Your task to perform on an android device: Go to CNN.com Image 0: 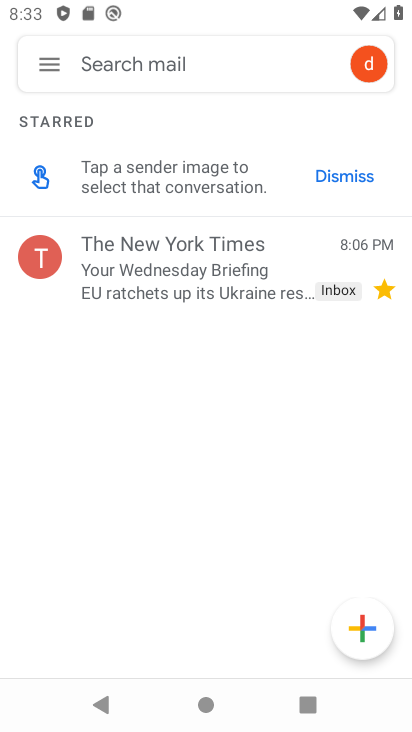
Step 0: press home button
Your task to perform on an android device: Go to CNN.com Image 1: 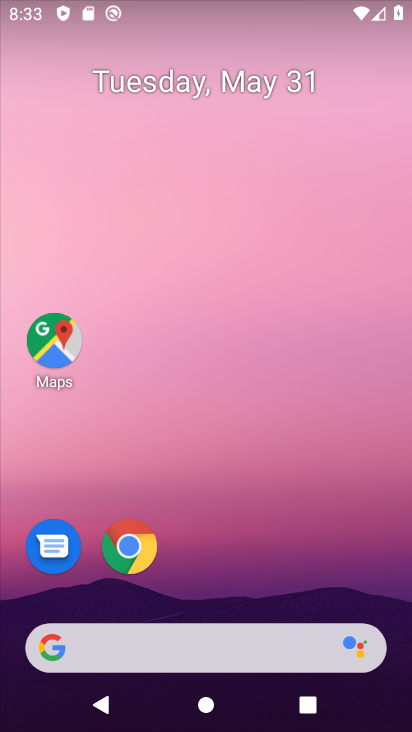
Step 1: click (122, 539)
Your task to perform on an android device: Go to CNN.com Image 2: 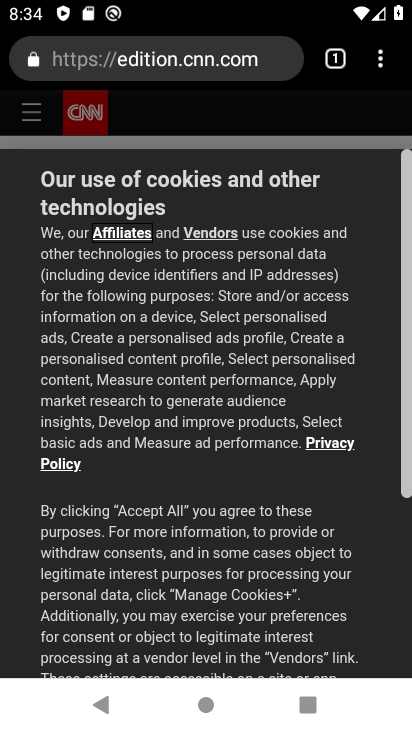
Step 2: click (274, 59)
Your task to perform on an android device: Go to CNN.com Image 3: 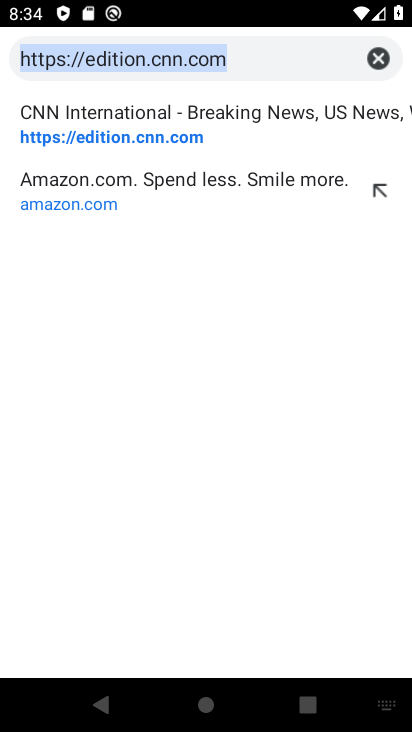
Step 3: click (375, 60)
Your task to perform on an android device: Go to CNN.com Image 4: 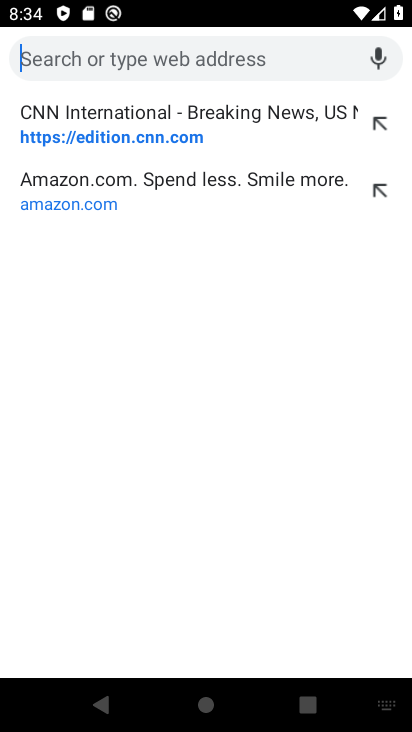
Step 4: type "CNN.com"
Your task to perform on an android device: Go to CNN.com Image 5: 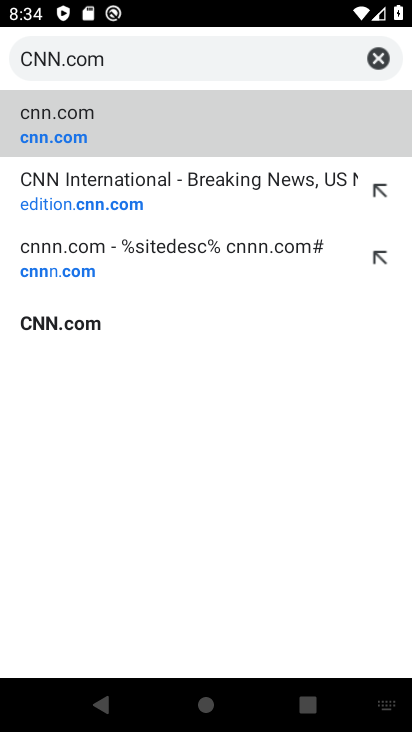
Step 5: click (20, 319)
Your task to perform on an android device: Go to CNN.com Image 6: 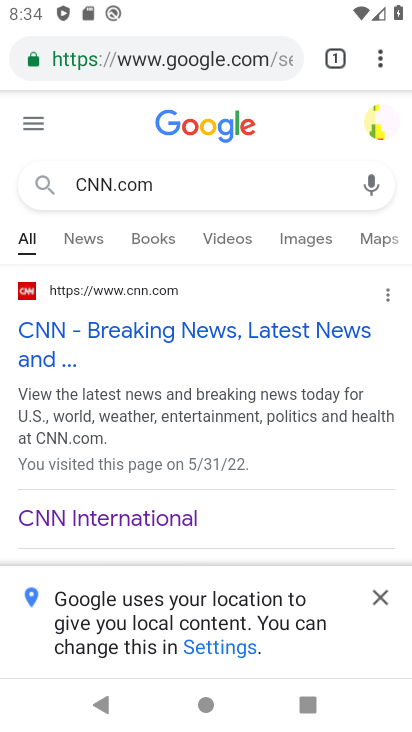
Step 6: task complete